Your task to perform on an android device: turn off wifi Image 0: 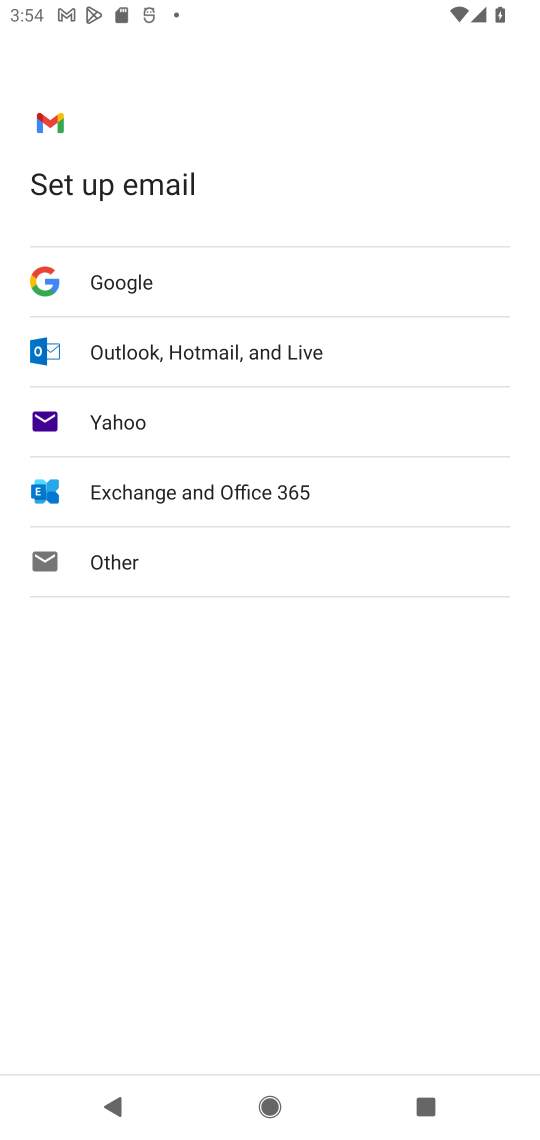
Step 0: press home button
Your task to perform on an android device: turn off wifi Image 1: 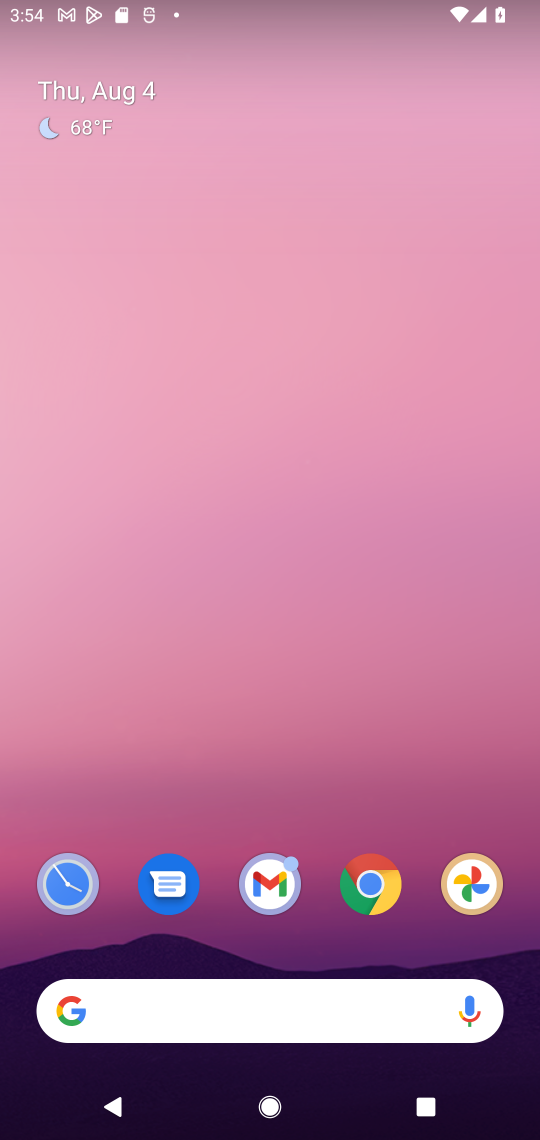
Step 1: drag from (319, 945) to (402, 8)
Your task to perform on an android device: turn off wifi Image 2: 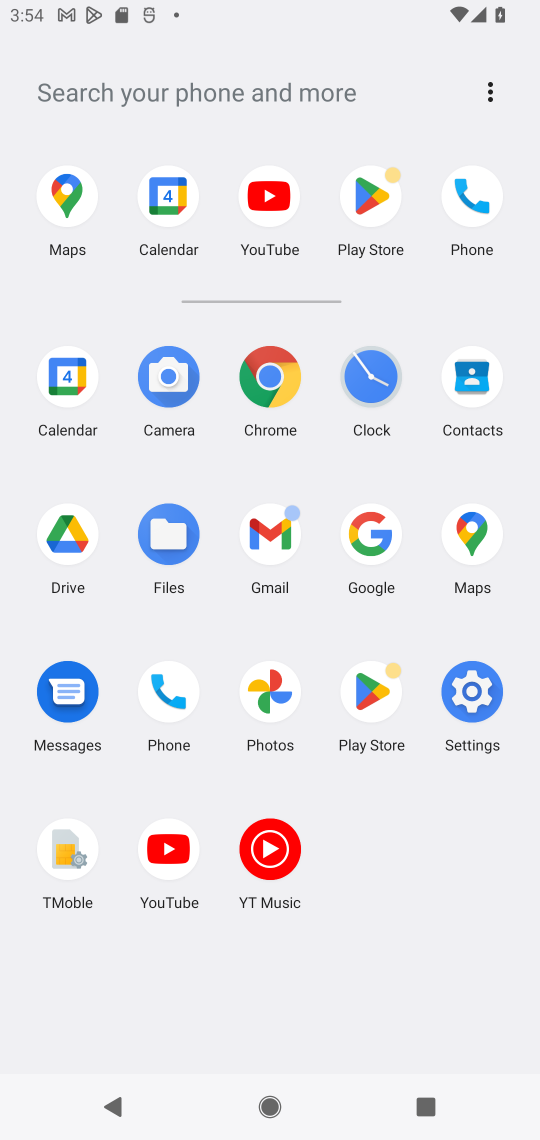
Step 2: click (497, 727)
Your task to perform on an android device: turn off wifi Image 3: 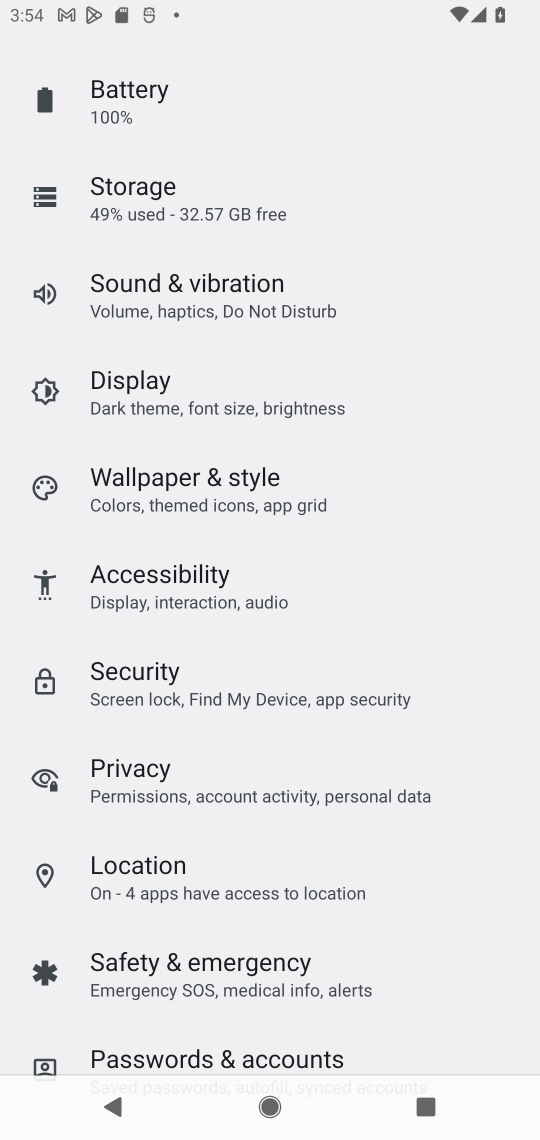
Step 3: drag from (232, 944) to (265, 420)
Your task to perform on an android device: turn off wifi Image 4: 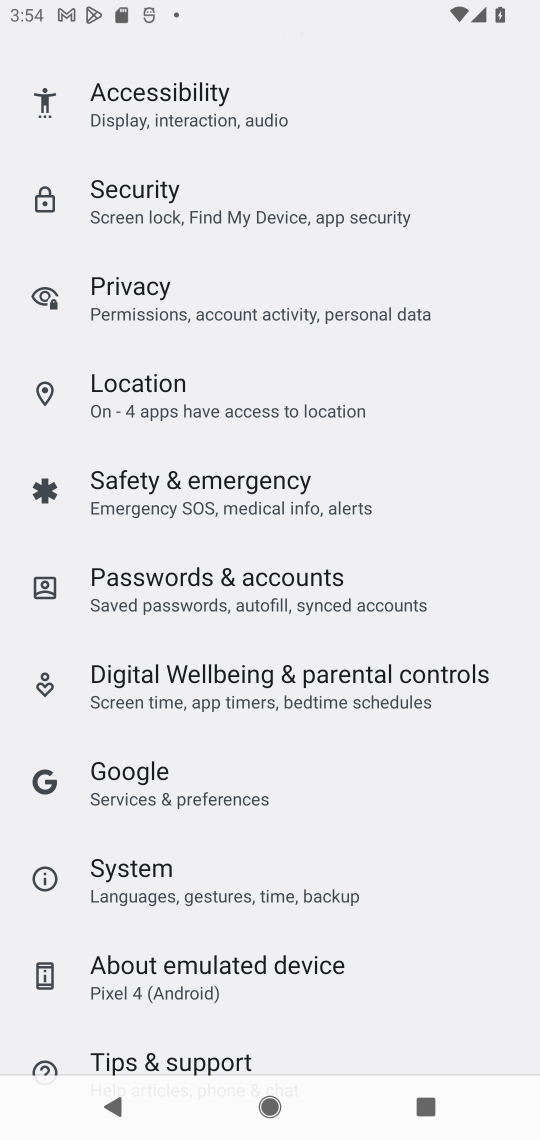
Step 4: drag from (254, 377) to (226, 1122)
Your task to perform on an android device: turn off wifi Image 5: 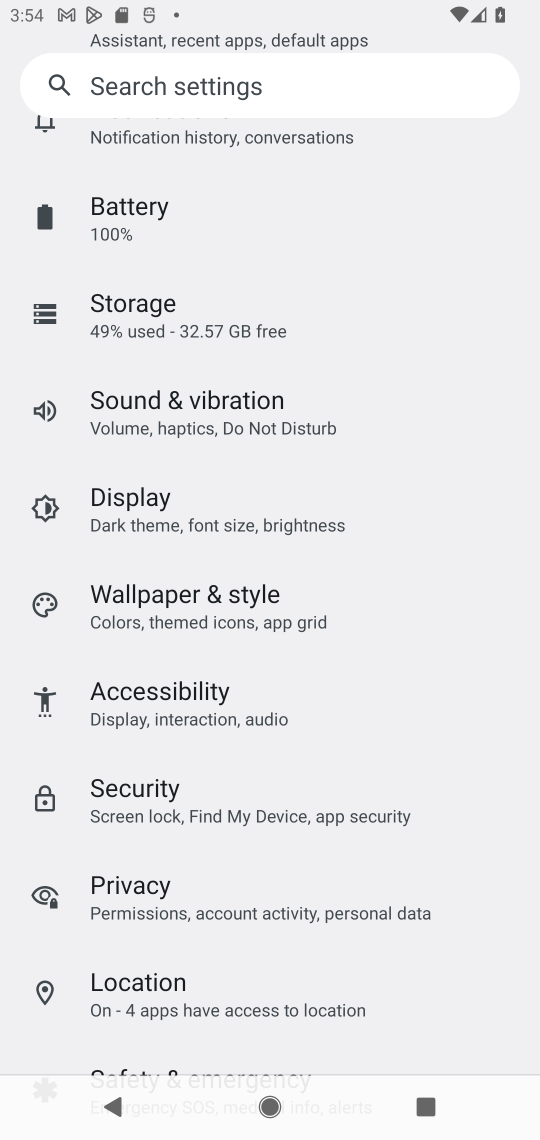
Step 5: drag from (205, 214) to (205, 988)
Your task to perform on an android device: turn off wifi Image 6: 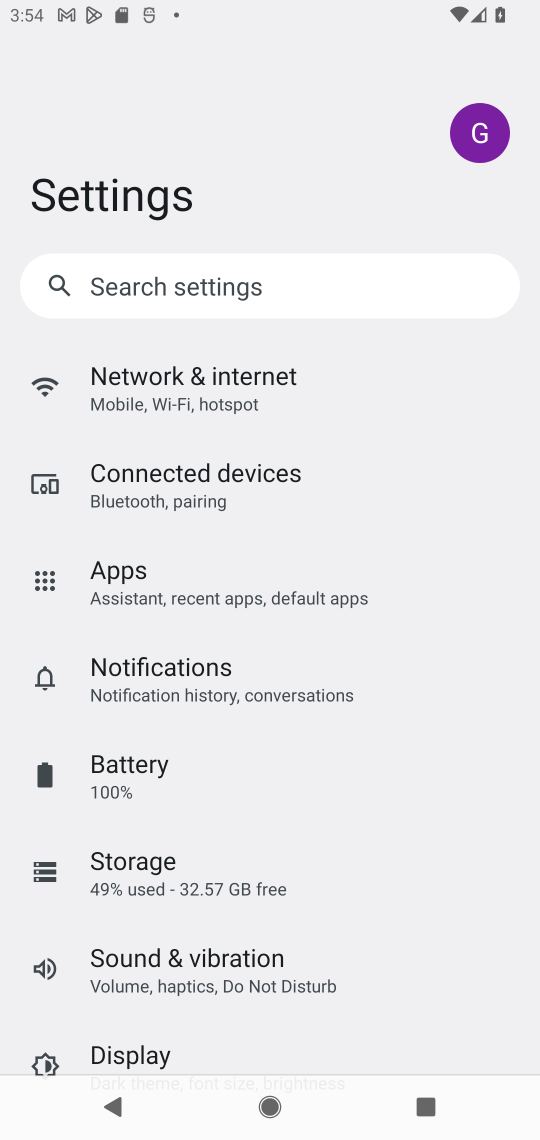
Step 6: click (232, 420)
Your task to perform on an android device: turn off wifi Image 7: 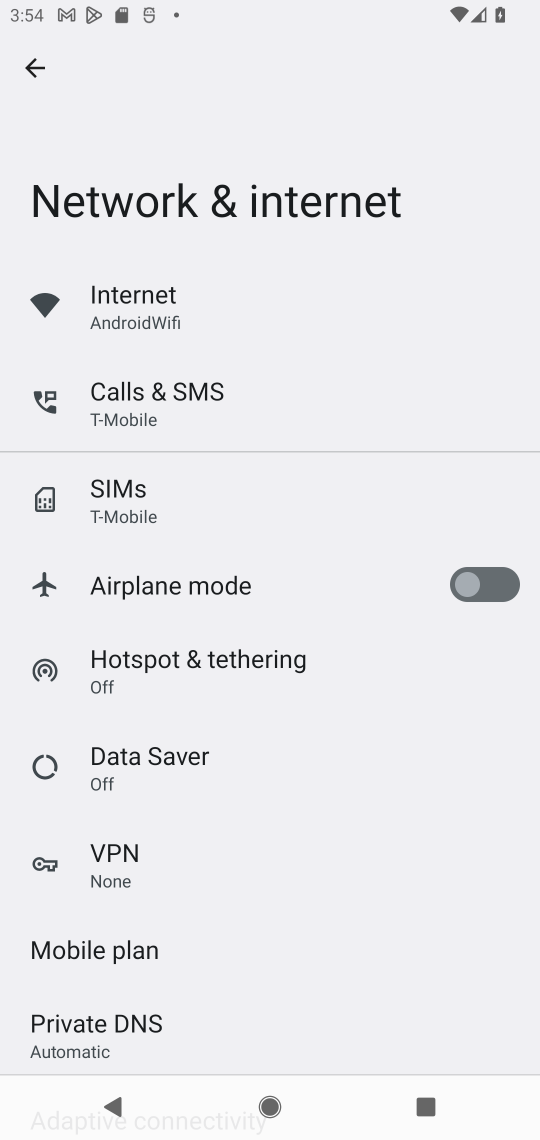
Step 7: task complete